Your task to perform on an android device: turn on improve location accuracy Image 0: 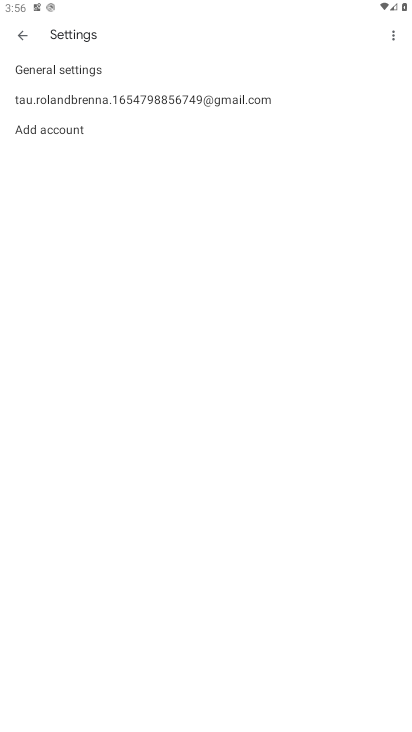
Step 0: press home button
Your task to perform on an android device: turn on improve location accuracy Image 1: 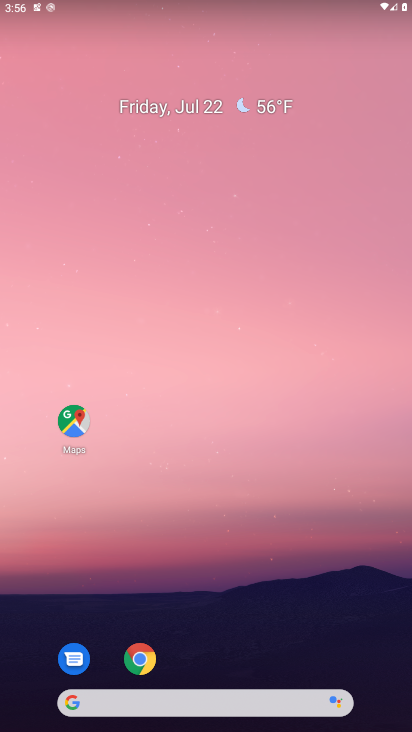
Step 1: drag from (212, 633) to (282, 189)
Your task to perform on an android device: turn on improve location accuracy Image 2: 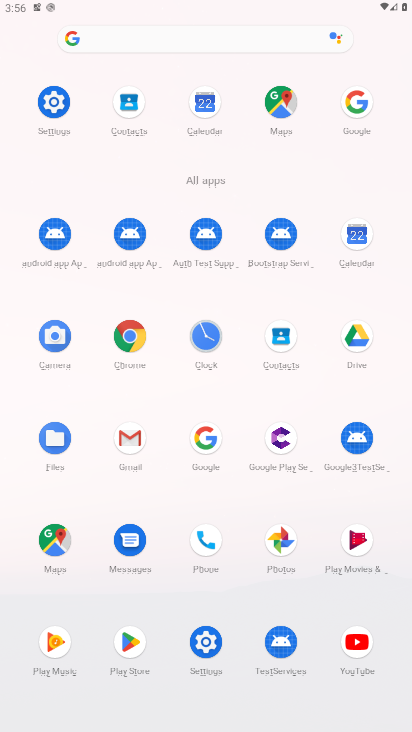
Step 2: click (48, 99)
Your task to perform on an android device: turn on improve location accuracy Image 3: 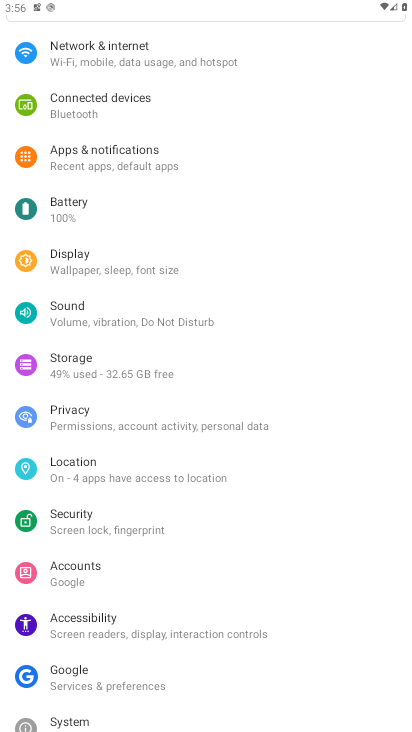
Step 3: click (91, 460)
Your task to perform on an android device: turn on improve location accuracy Image 4: 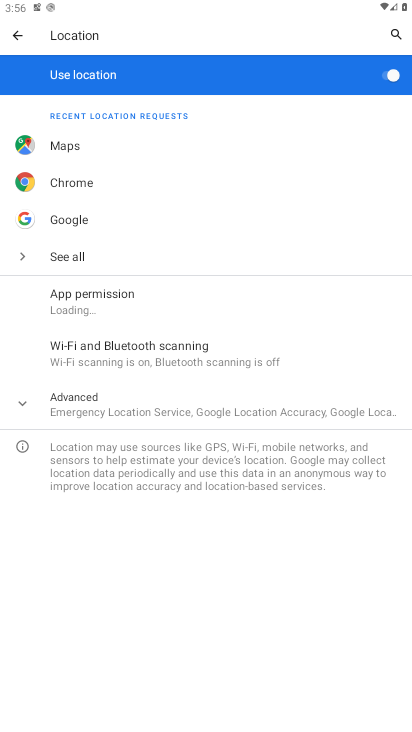
Step 4: click (99, 409)
Your task to perform on an android device: turn on improve location accuracy Image 5: 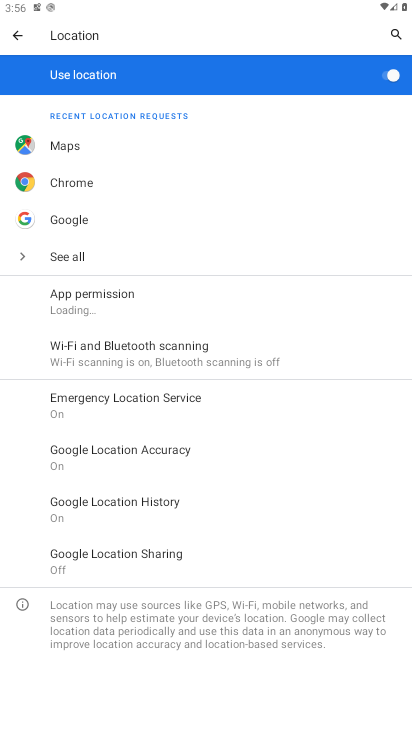
Step 5: click (136, 445)
Your task to perform on an android device: turn on improve location accuracy Image 6: 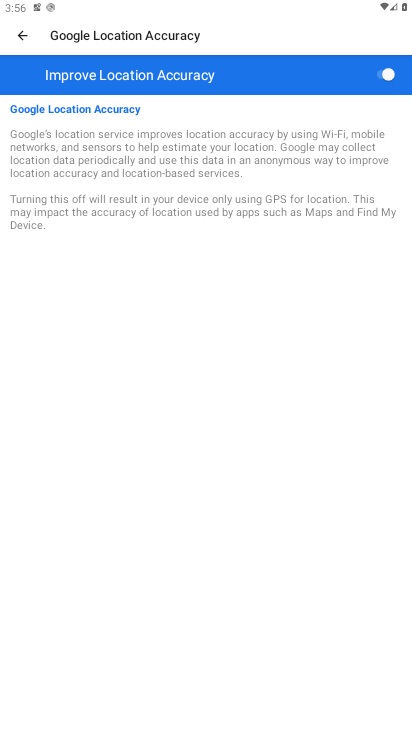
Step 6: task complete